Your task to perform on an android device: Open privacy settings Image 0: 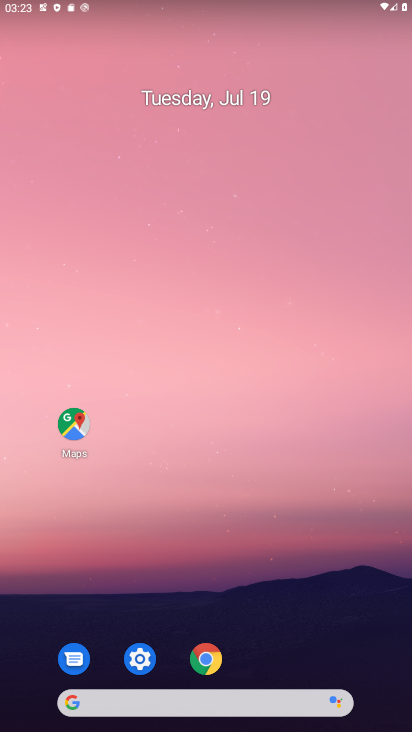
Step 0: drag from (196, 567) to (151, 258)
Your task to perform on an android device: Open privacy settings Image 1: 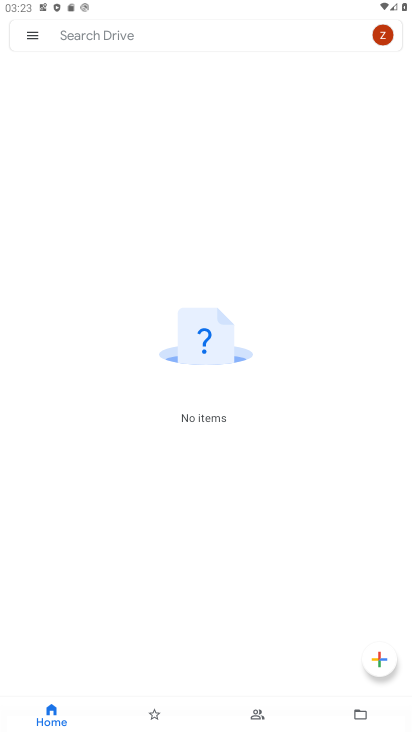
Step 1: press back button
Your task to perform on an android device: Open privacy settings Image 2: 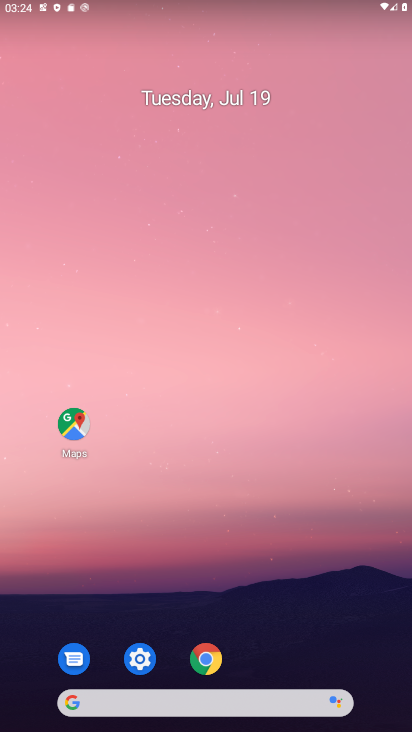
Step 2: click (166, 206)
Your task to perform on an android device: Open privacy settings Image 3: 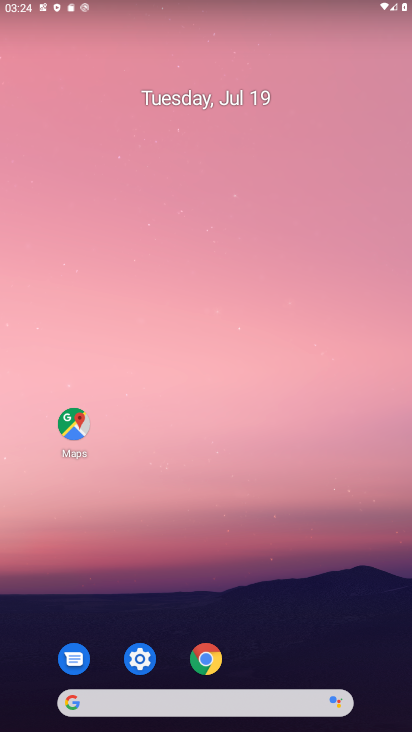
Step 3: drag from (218, 572) to (146, 241)
Your task to perform on an android device: Open privacy settings Image 4: 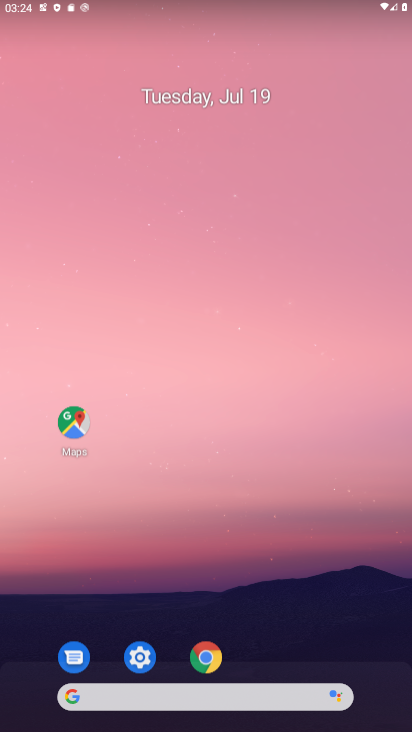
Step 4: drag from (204, 594) to (62, 97)
Your task to perform on an android device: Open privacy settings Image 5: 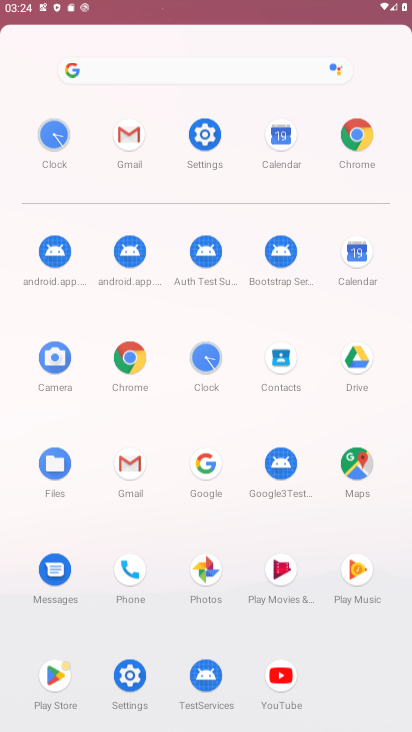
Step 5: drag from (202, 584) to (38, 83)
Your task to perform on an android device: Open privacy settings Image 6: 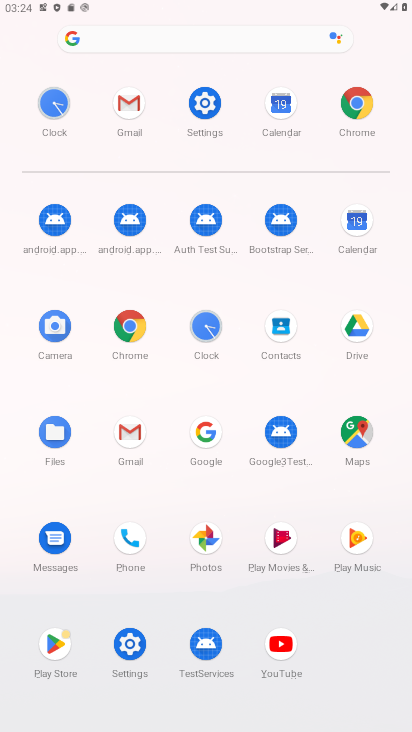
Step 6: click (196, 105)
Your task to perform on an android device: Open privacy settings Image 7: 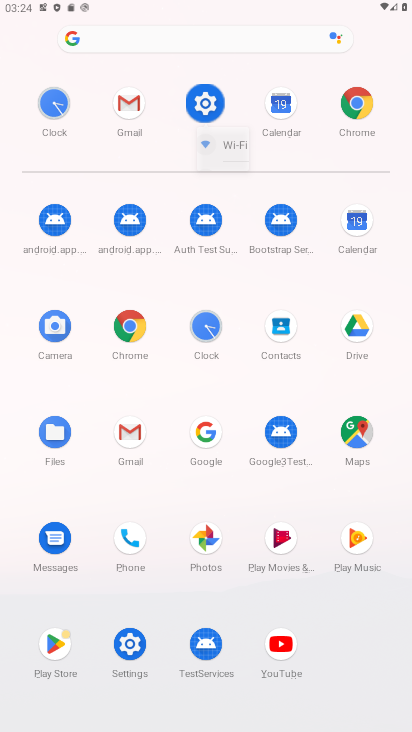
Step 7: click (208, 106)
Your task to perform on an android device: Open privacy settings Image 8: 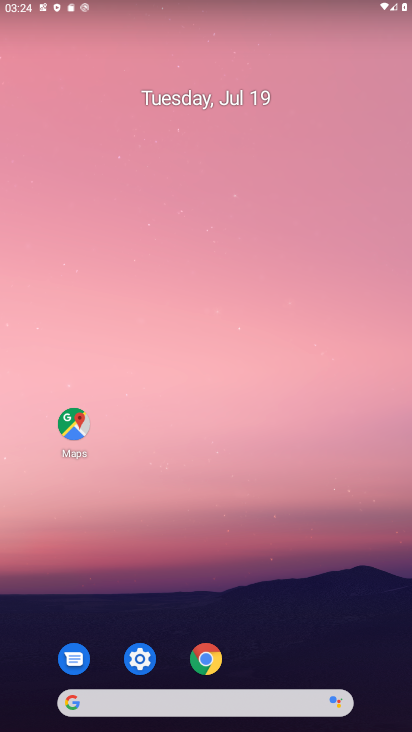
Step 8: drag from (251, 560) to (133, 121)
Your task to perform on an android device: Open privacy settings Image 9: 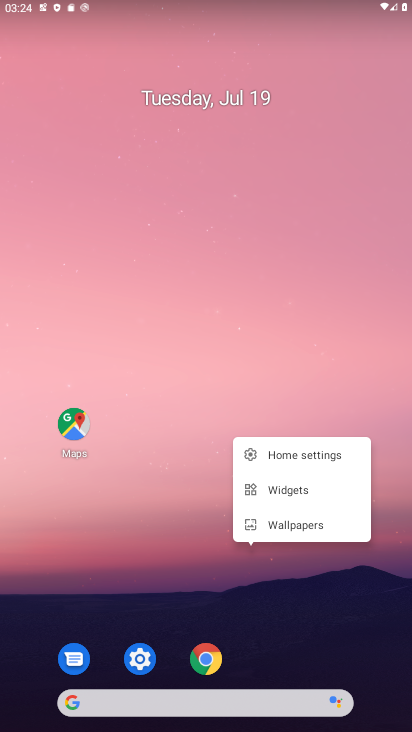
Step 9: drag from (277, 480) to (180, 81)
Your task to perform on an android device: Open privacy settings Image 10: 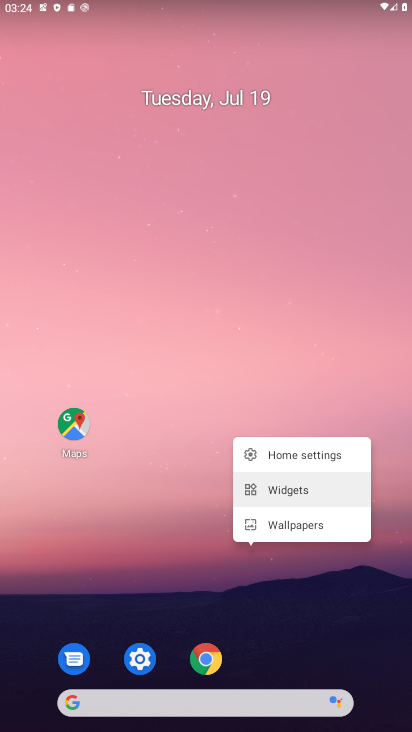
Step 10: drag from (243, 539) to (161, 175)
Your task to perform on an android device: Open privacy settings Image 11: 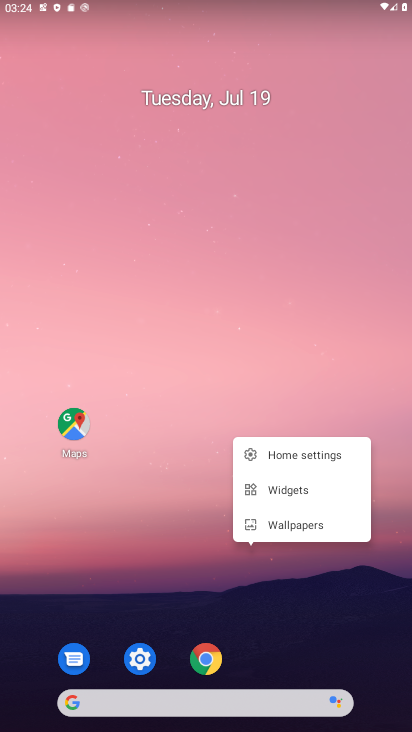
Step 11: drag from (208, 574) to (158, 236)
Your task to perform on an android device: Open privacy settings Image 12: 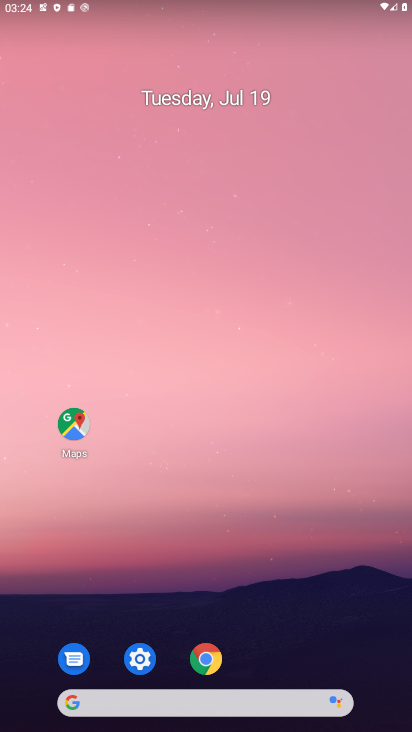
Step 12: drag from (207, 589) to (167, 117)
Your task to perform on an android device: Open privacy settings Image 13: 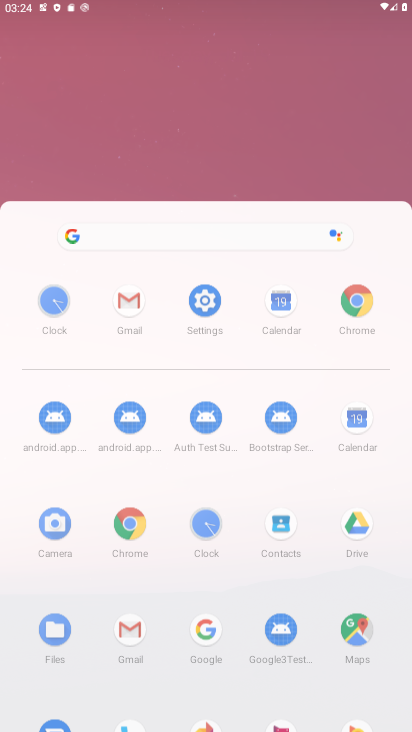
Step 13: drag from (215, 570) to (183, 186)
Your task to perform on an android device: Open privacy settings Image 14: 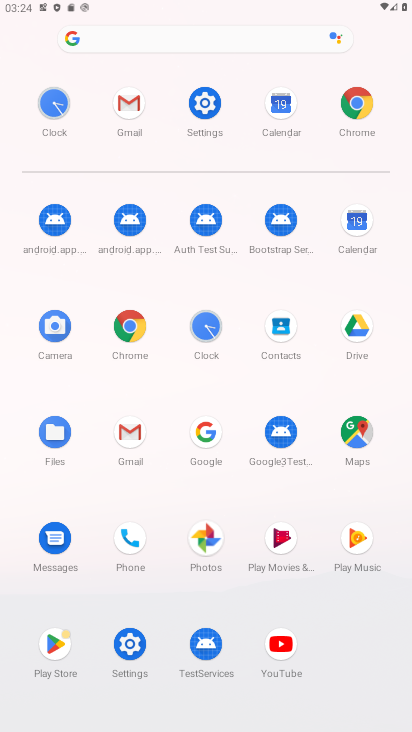
Step 14: drag from (218, 501) to (180, 194)
Your task to perform on an android device: Open privacy settings Image 15: 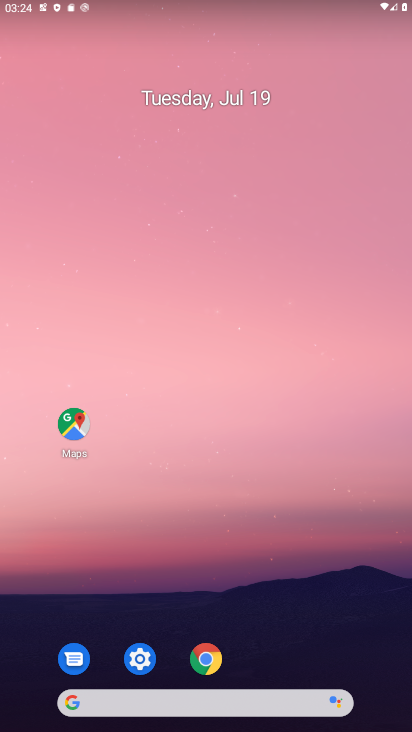
Step 15: drag from (274, 544) to (133, 161)
Your task to perform on an android device: Open privacy settings Image 16: 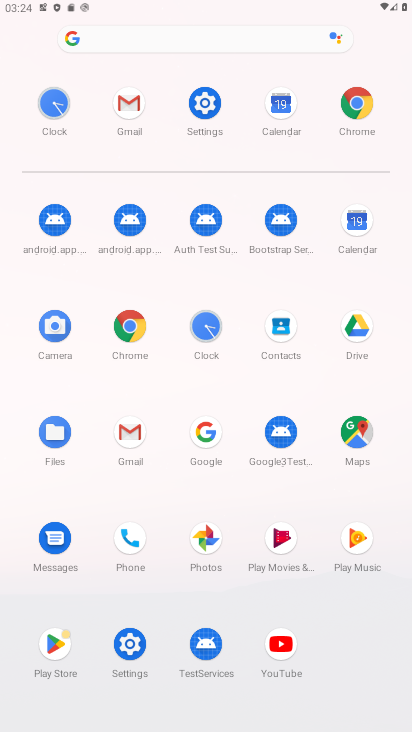
Step 16: click (200, 115)
Your task to perform on an android device: Open privacy settings Image 17: 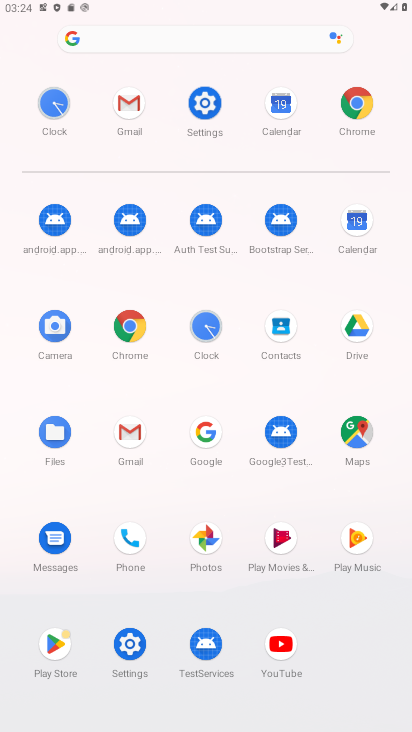
Step 17: click (200, 115)
Your task to perform on an android device: Open privacy settings Image 18: 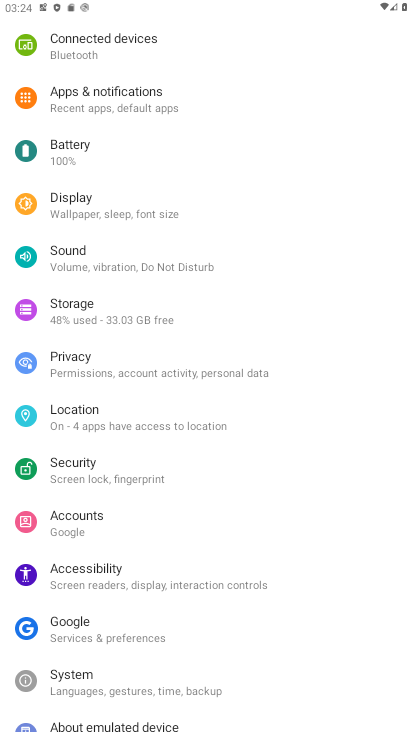
Step 18: click (201, 115)
Your task to perform on an android device: Open privacy settings Image 19: 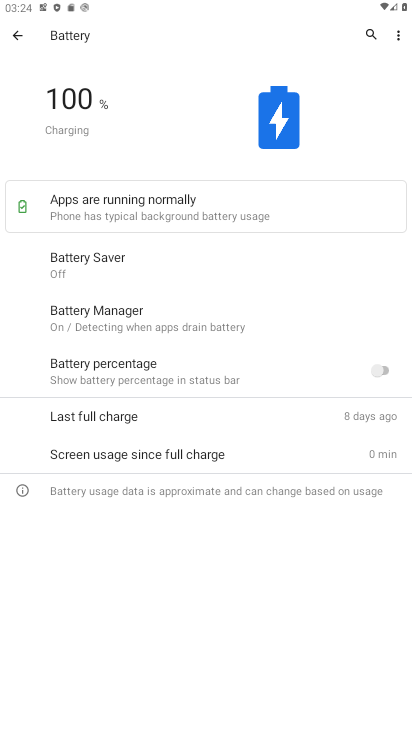
Step 19: click (15, 32)
Your task to perform on an android device: Open privacy settings Image 20: 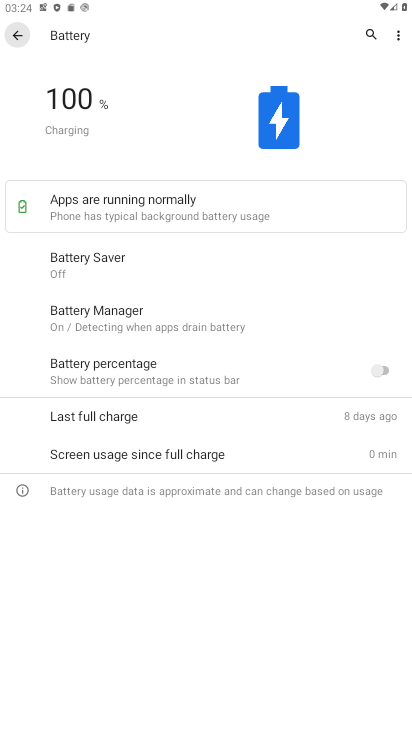
Step 20: click (17, 31)
Your task to perform on an android device: Open privacy settings Image 21: 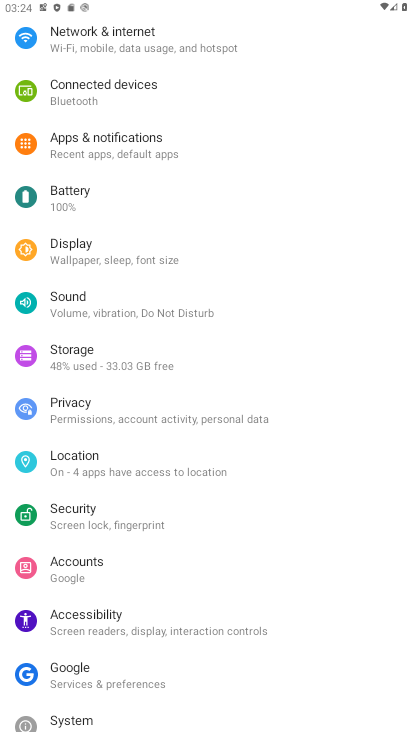
Step 21: click (76, 411)
Your task to perform on an android device: Open privacy settings Image 22: 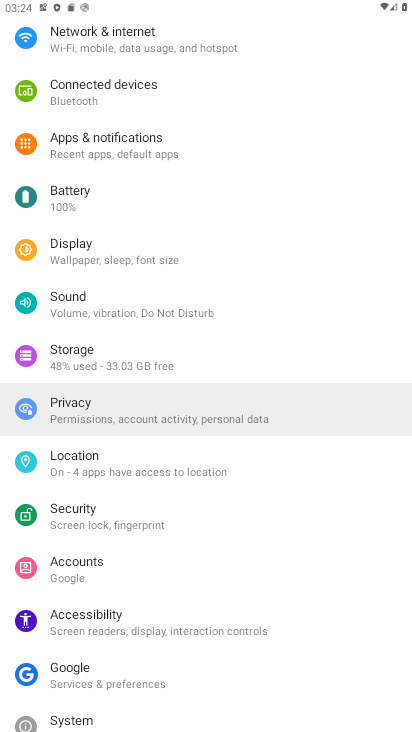
Step 22: click (81, 411)
Your task to perform on an android device: Open privacy settings Image 23: 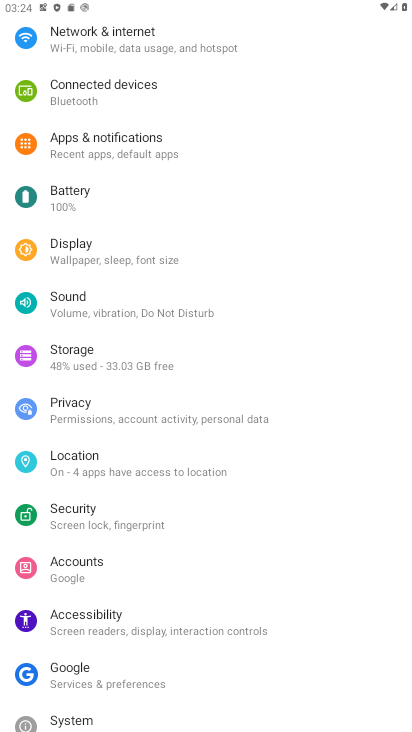
Step 23: click (85, 411)
Your task to perform on an android device: Open privacy settings Image 24: 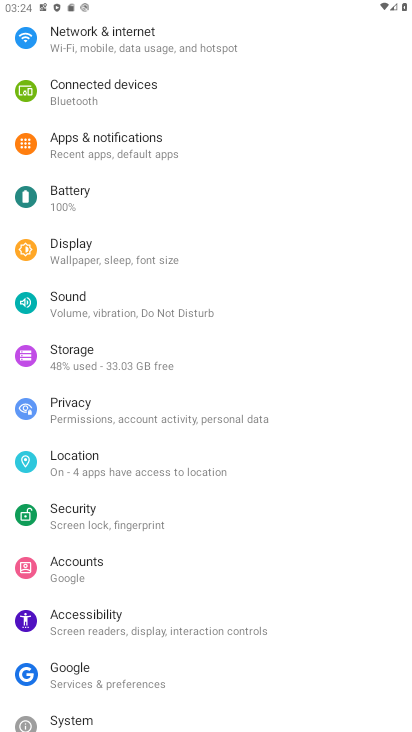
Step 24: click (85, 411)
Your task to perform on an android device: Open privacy settings Image 25: 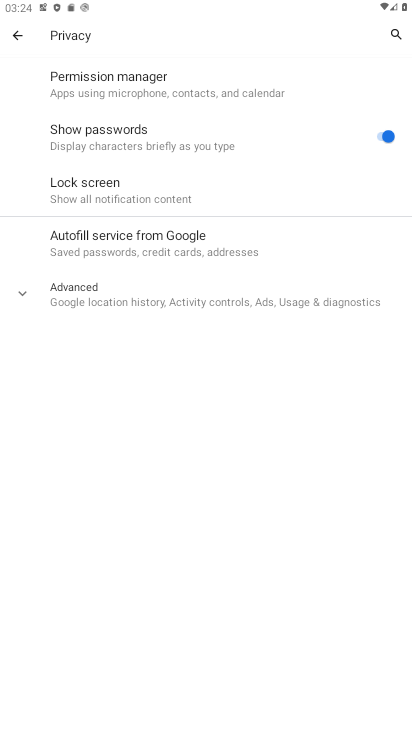
Step 25: task complete